Your task to perform on an android device: Go to wifi settings Image 0: 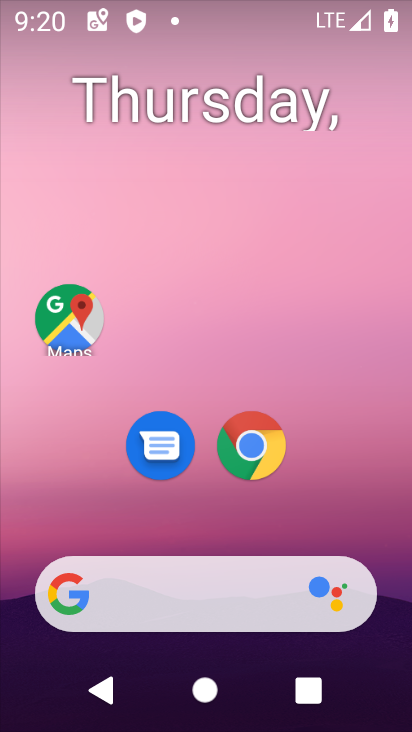
Step 0: drag from (81, 544) to (225, 117)
Your task to perform on an android device: Go to wifi settings Image 1: 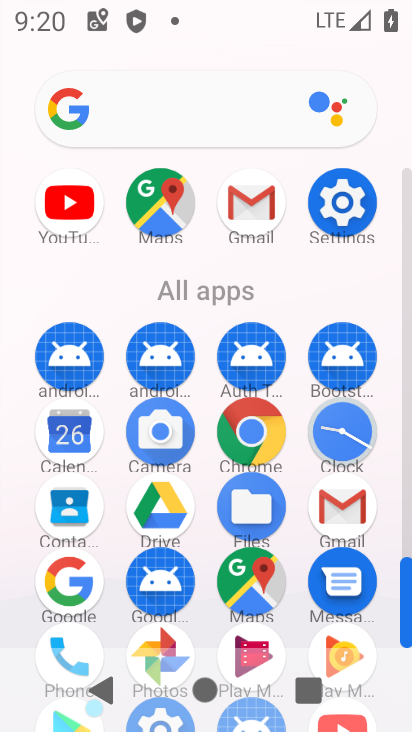
Step 1: drag from (172, 571) to (276, 340)
Your task to perform on an android device: Go to wifi settings Image 2: 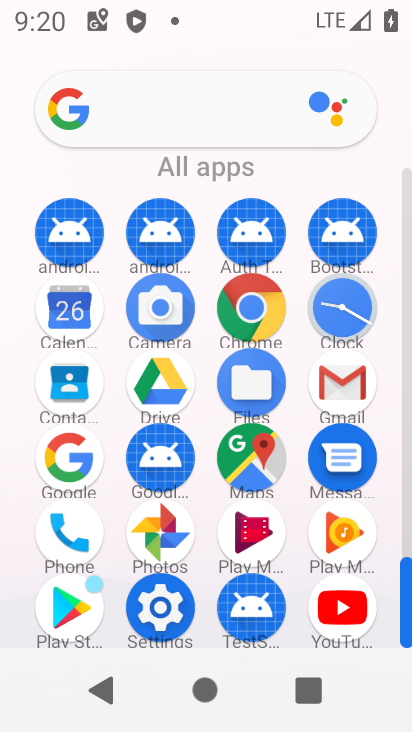
Step 2: click (154, 614)
Your task to perform on an android device: Go to wifi settings Image 3: 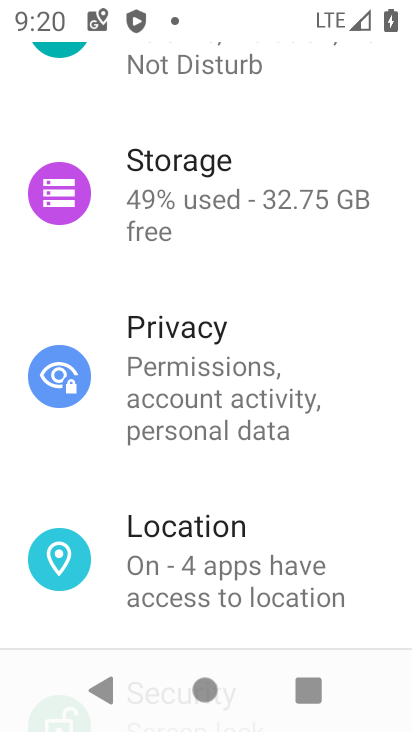
Step 3: drag from (244, 193) to (190, 547)
Your task to perform on an android device: Go to wifi settings Image 4: 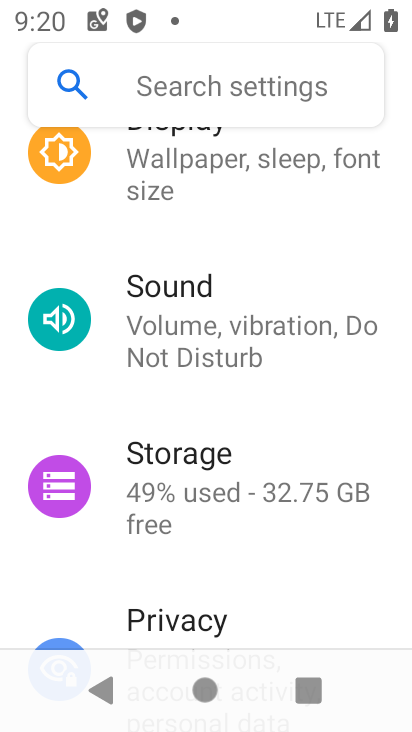
Step 4: drag from (266, 235) to (166, 546)
Your task to perform on an android device: Go to wifi settings Image 5: 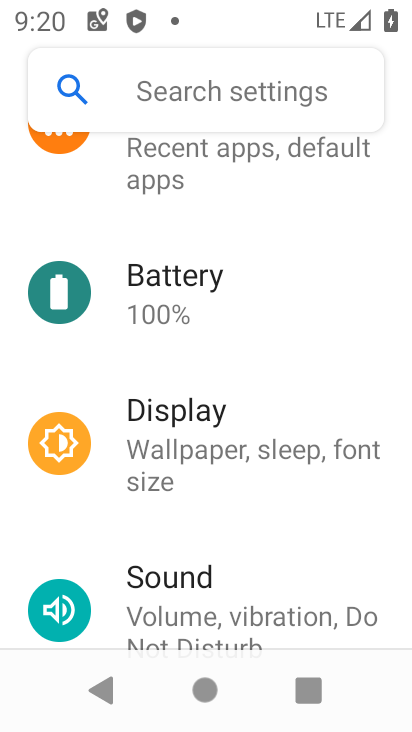
Step 5: drag from (289, 240) to (235, 538)
Your task to perform on an android device: Go to wifi settings Image 6: 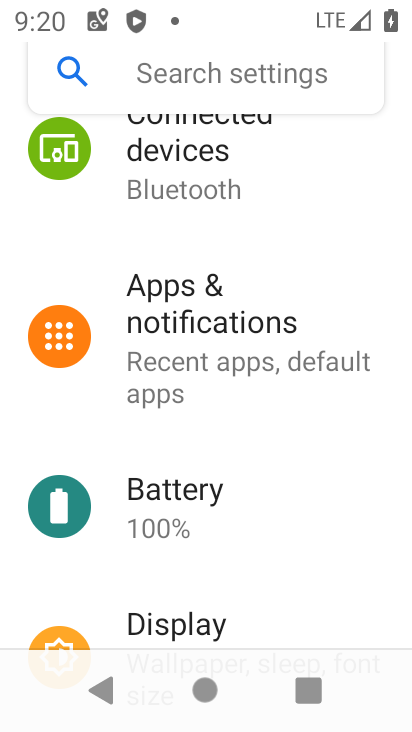
Step 6: drag from (269, 229) to (204, 552)
Your task to perform on an android device: Go to wifi settings Image 7: 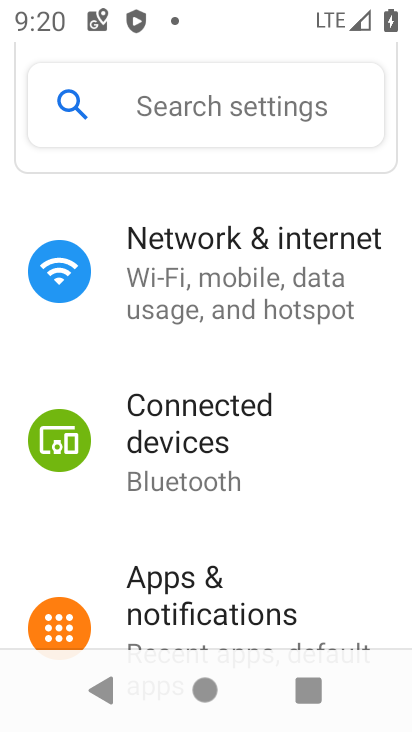
Step 7: click (259, 305)
Your task to perform on an android device: Go to wifi settings Image 8: 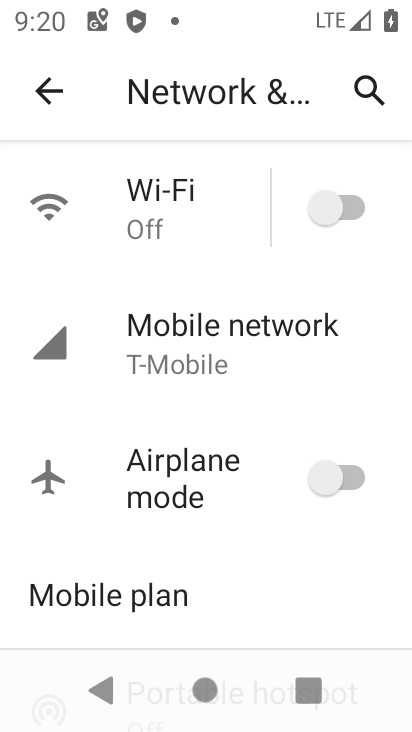
Step 8: click (170, 229)
Your task to perform on an android device: Go to wifi settings Image 9: 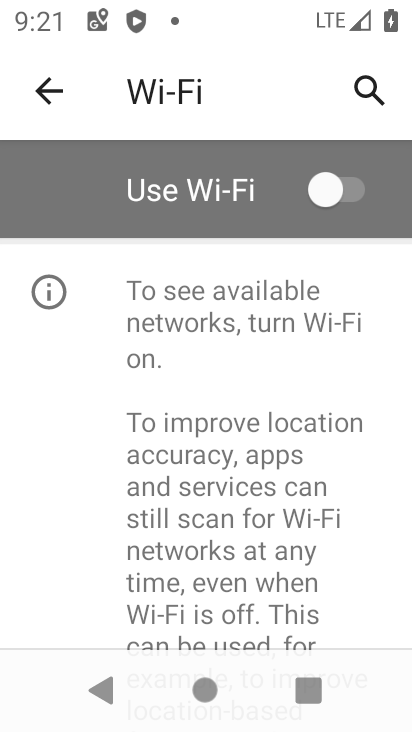
Step 9: task complete